Your task to perform on an android device: Open ESPN.com Image 0: 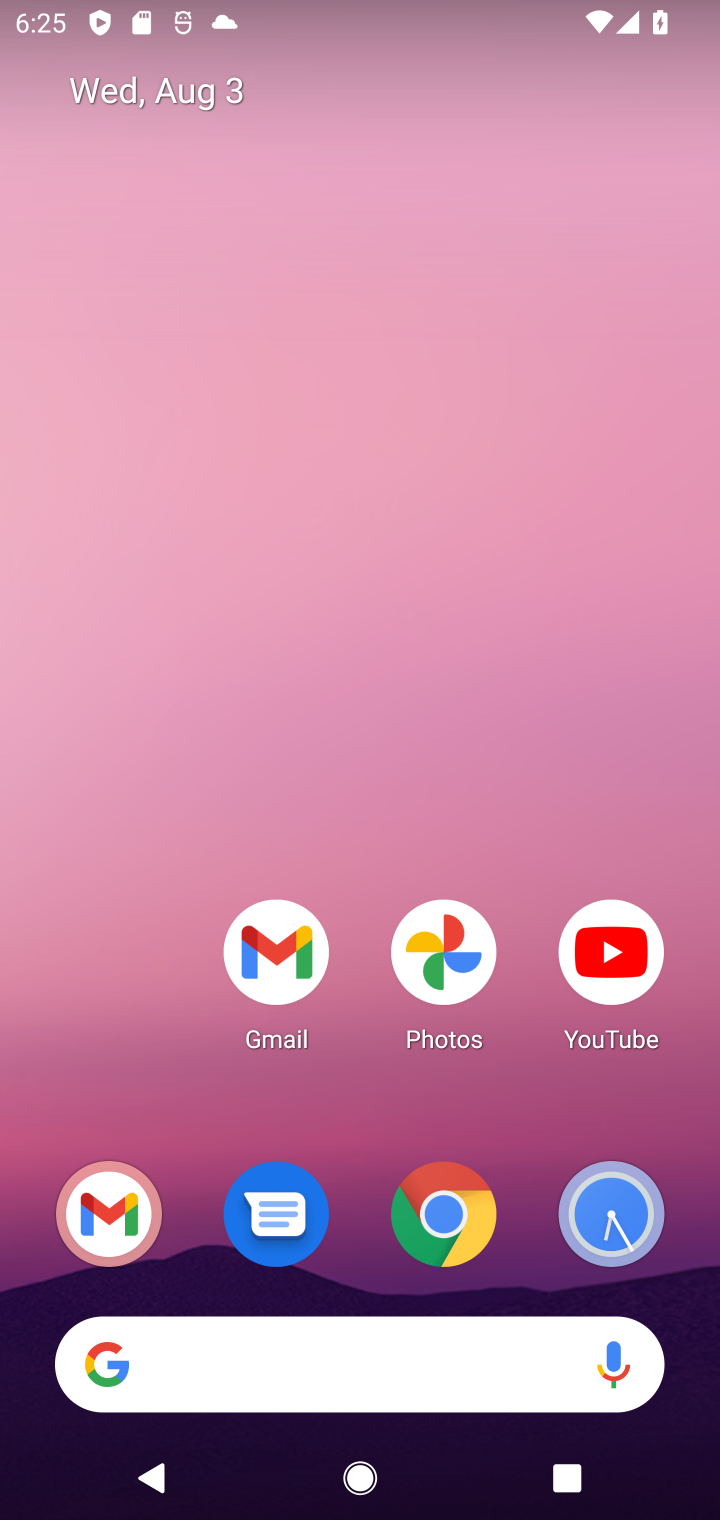
Step 0: drag from (205, 1189) to (340, 29)
Your task to perform on an android device: Open ESPN.com Image 1: 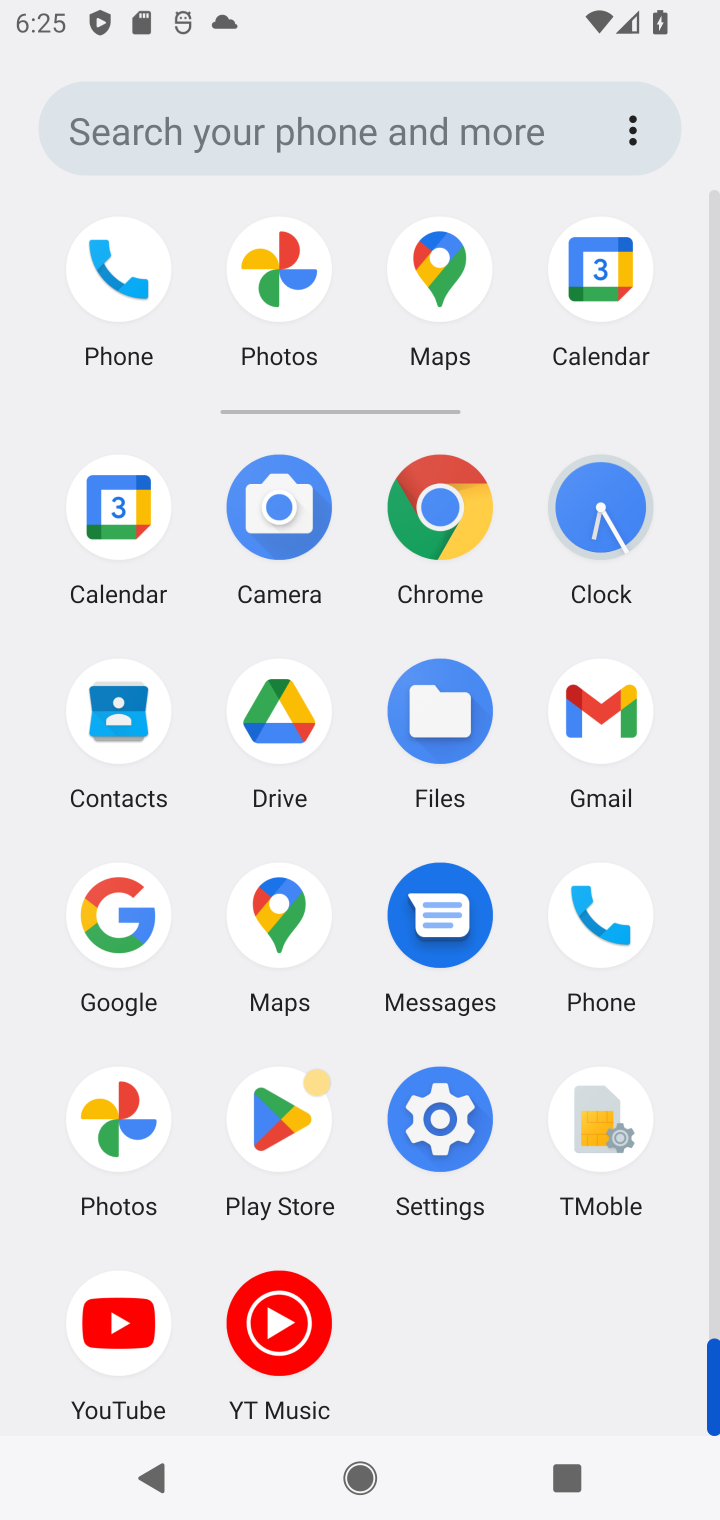
Step 1: click (426, 508)
Your task to perform on an android device: Open ESPN.com Image 2: 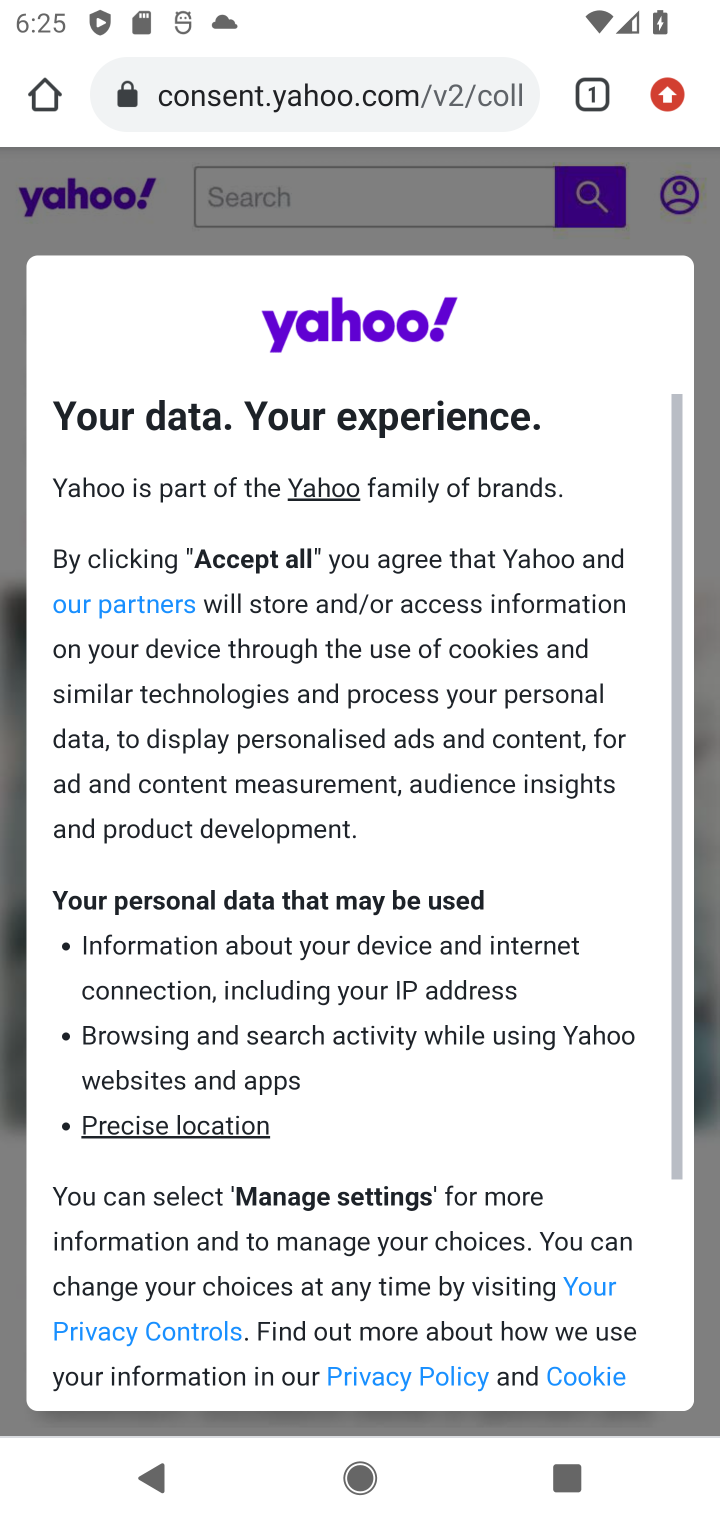
Step 2: click (288, 92)
Your task to perform on an android device: Open ESPN.com Image 3: 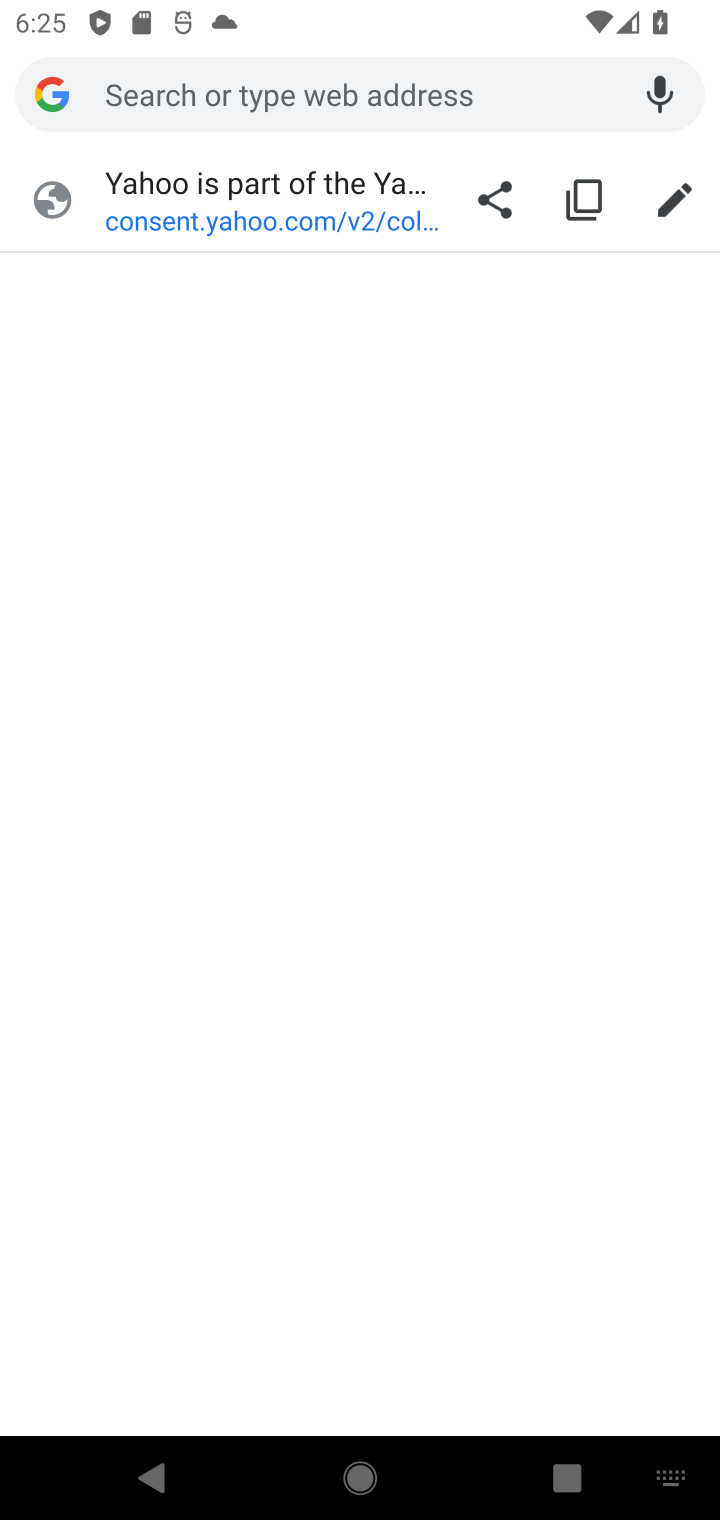
Step 3: type "espn.com"
Your task to perform on an android device: Open ESPN.com Image 4: 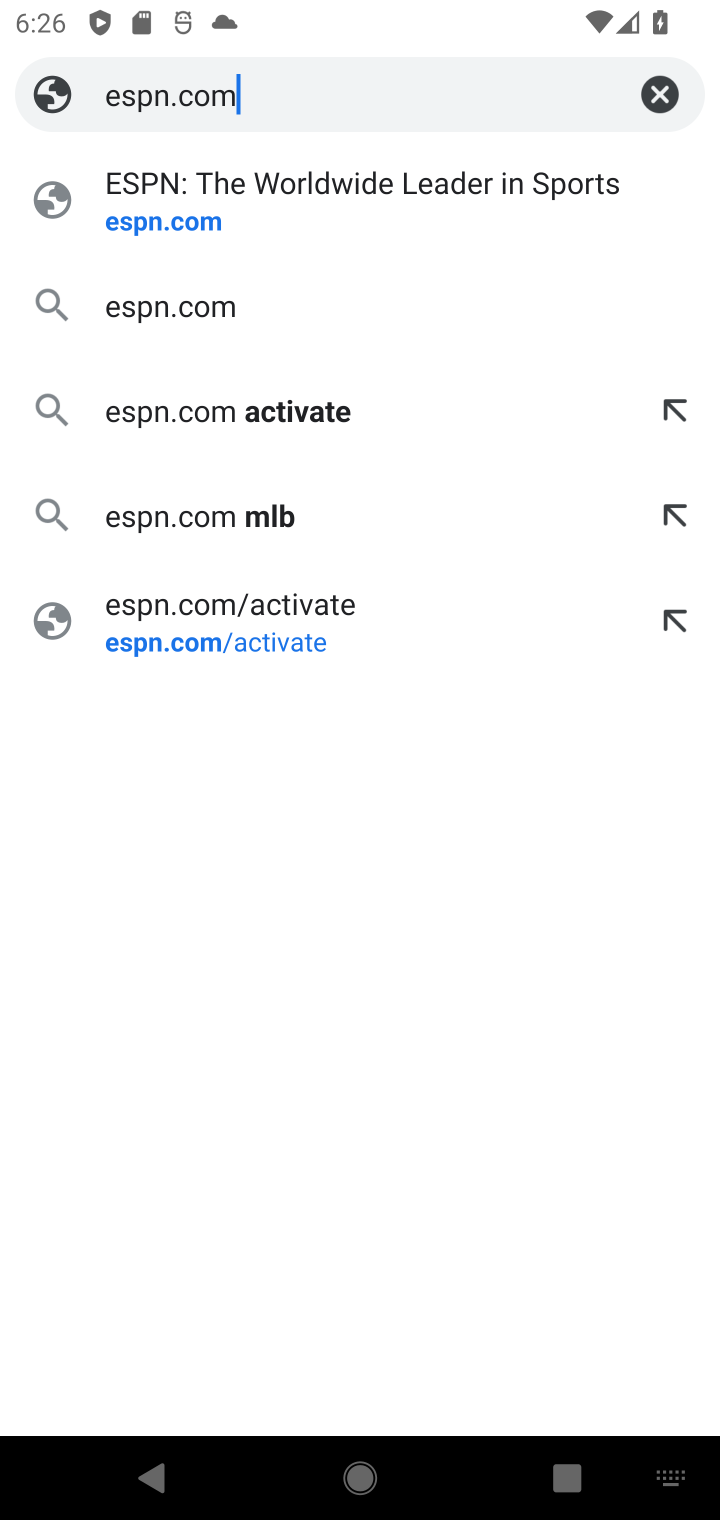
Step 4: click (142, 322)
Your task to perform on an android device: Open ESPN.com Image 5: 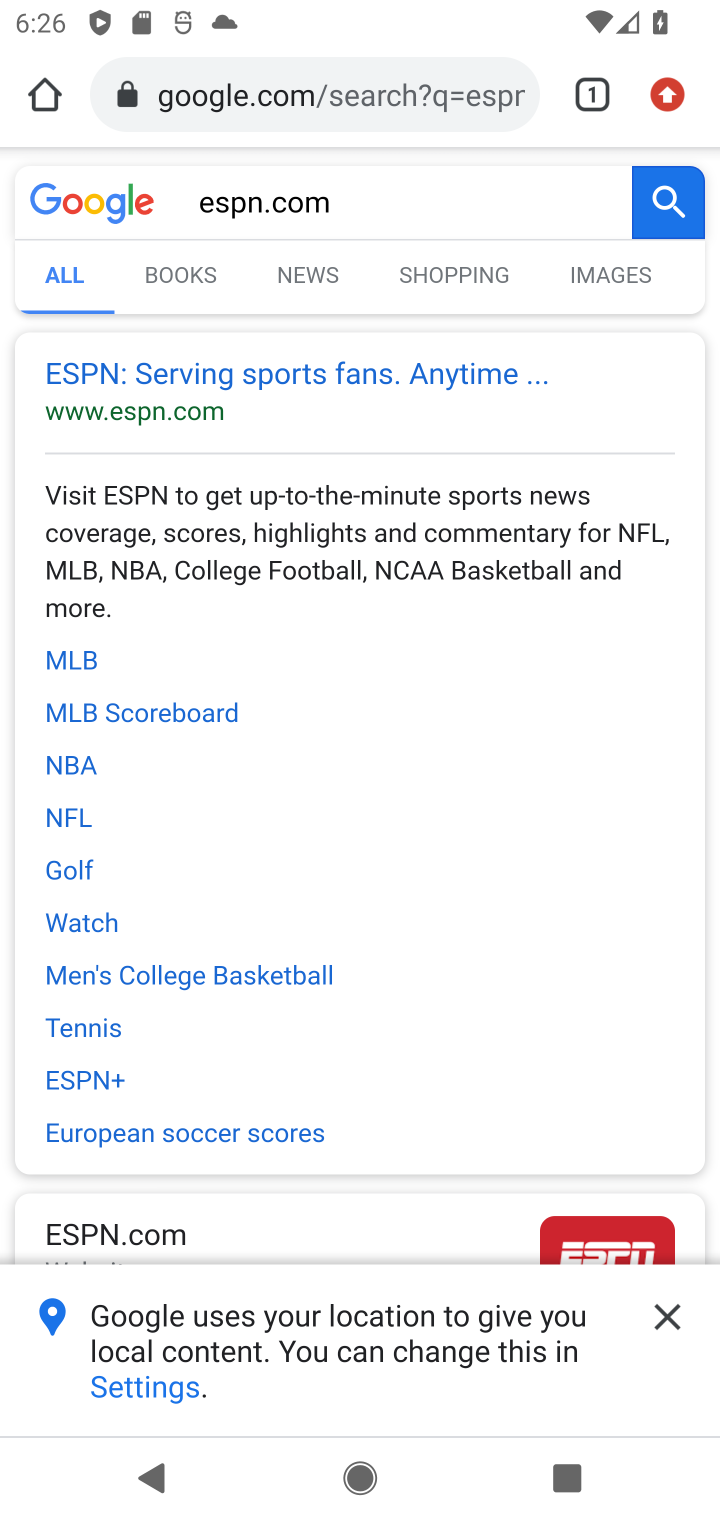
Step 5: click (106, 385)
Your task to perform on an android device: Open ESPN.com Image 6: 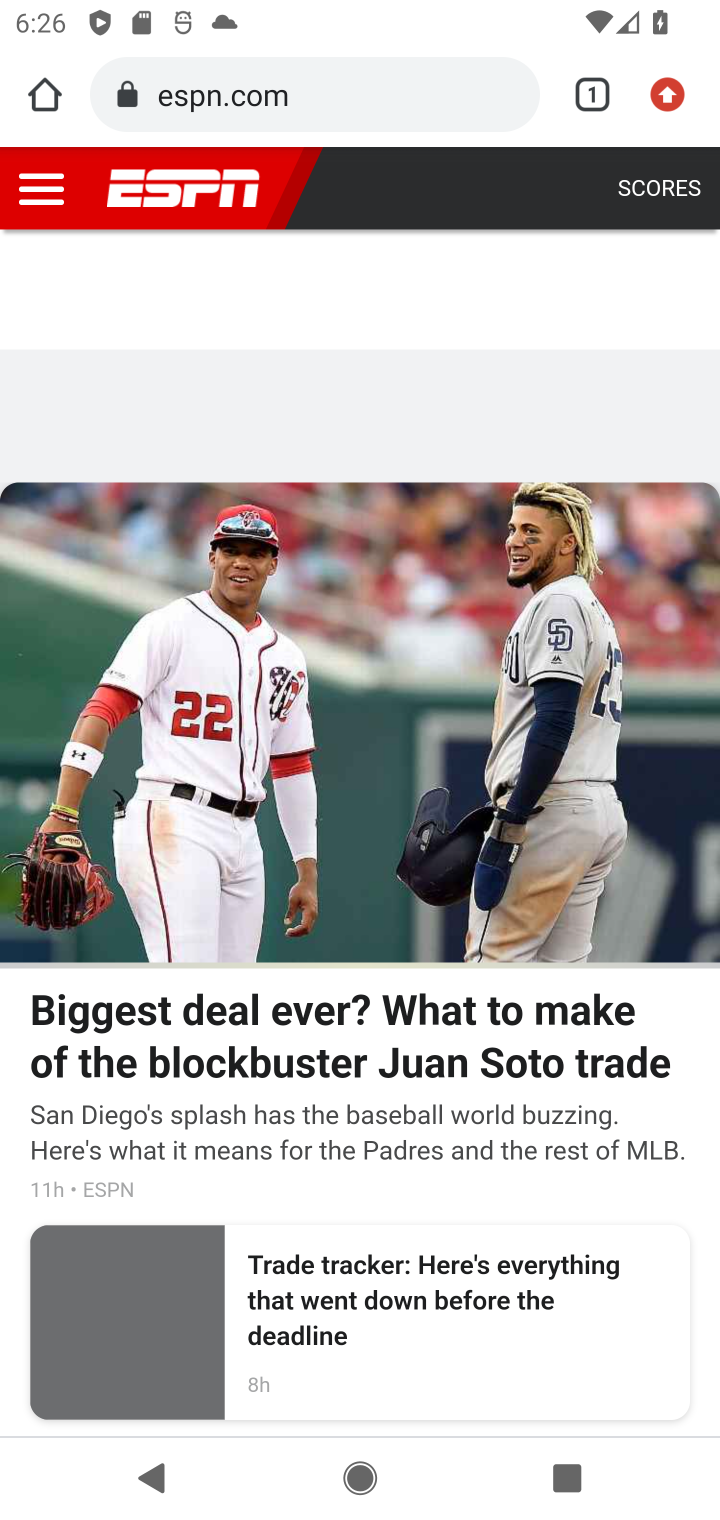
Step 6: task complete